Your task to perform on an android device: Search for the best 4k TVs Image 0: 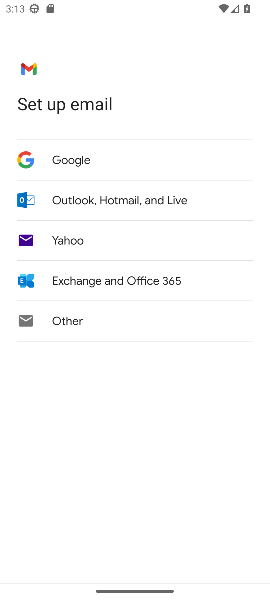
Step 0: press home button
Your task to perform on an android device: Search for the best 4k TVs Image 1: 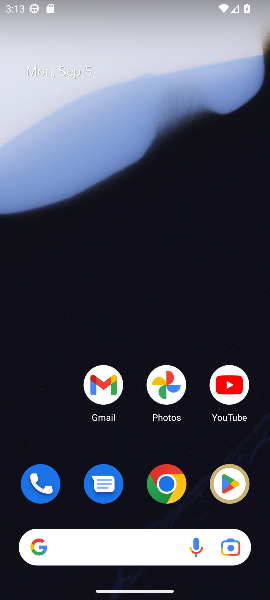
Step 1: click (163, 486)
Your task to perform on an android device: Search for the best 4k TVs Image 2: 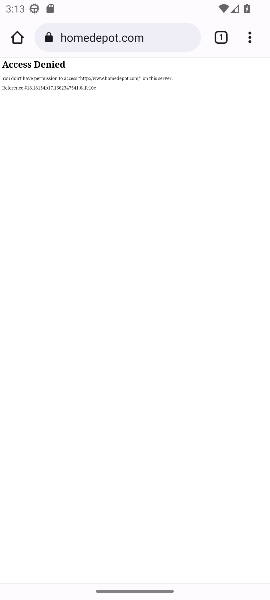
Step 2: click (153, 35)
Your task to perform on an android device: Search for the best 4k TVs Image 3: 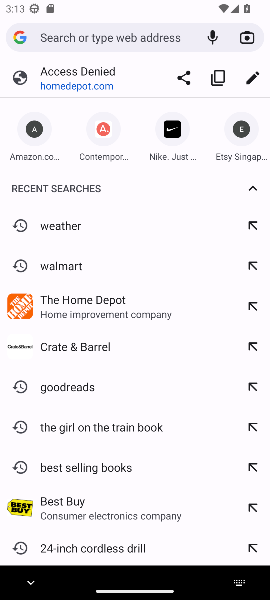
Step 3: type "best 4k TVs"
Your task to perform on an android device: Search for the best 4k TVs Image 4: 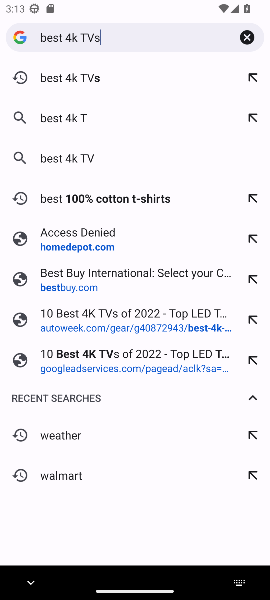
Step 4: press enter
Your task to perform on an android device: Search for the best 4k TVs Image 5: 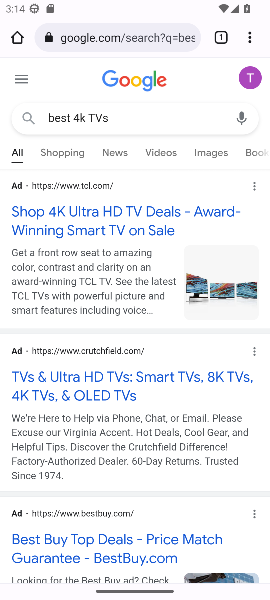
Step 5: task complete